Your task to perform on an android device: Go to Google Image 0: 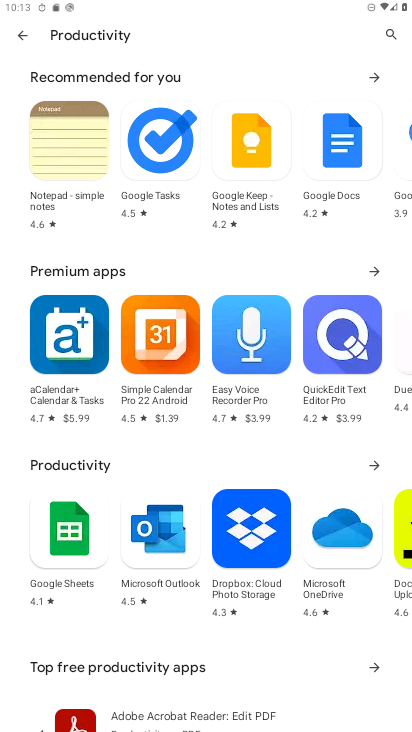
Step 0: press home button
Your task to perform on an android device: Go to Google Image 1: 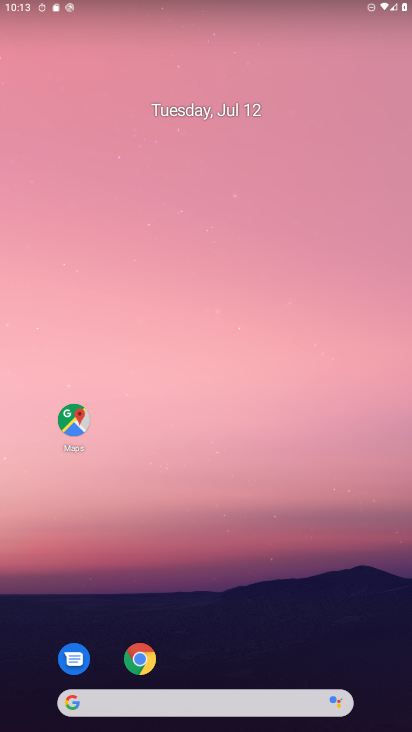
Step 1: drag from (228, 718) to (221, 148)
Your task to perform on an android device: Go to Google Image 2: 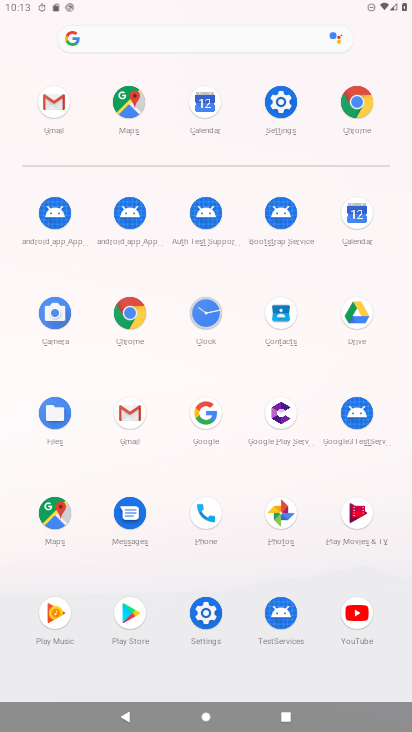
Step 2: click (205, 410)
Your task to perform on an android device: Go to Google Image 3: 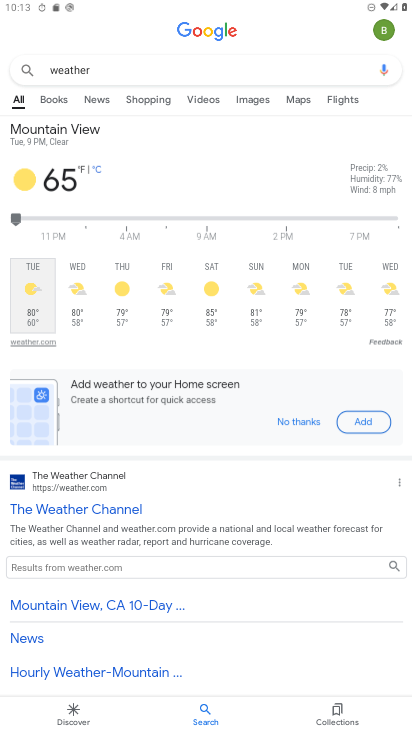
Step 3: task complete